Your task to perform on an android device: Check the weather Image 0: 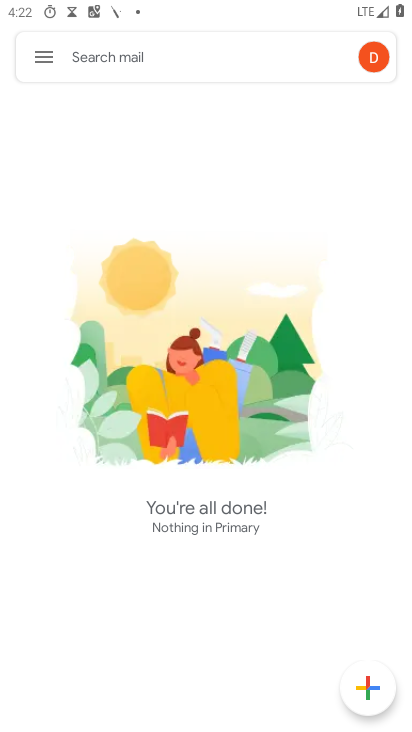
Step 0: press home button
Your task to perform on an android device: Check the weather Image 1: 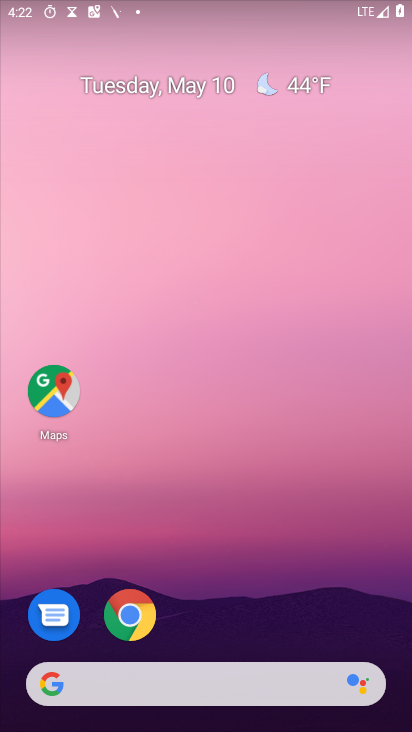
Step 1: drag from (256, 572) to (170, 126)
Your task to perform on an android device: Check the weather Image 2: 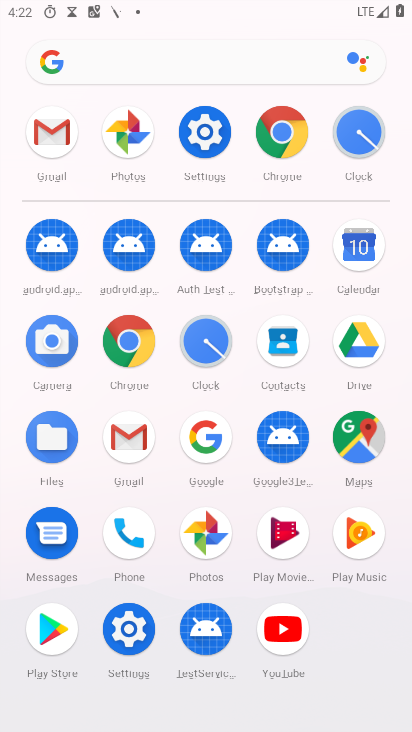
Step 2: click (143, 342)
Your task to perform on an android device: Check the weather Image 3: 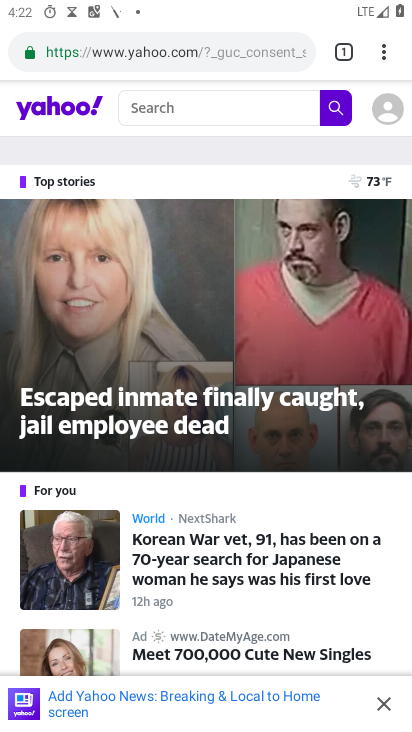
Step 3: click (233, 60)
Your task to perform on an android device: Check the weather Image 4: 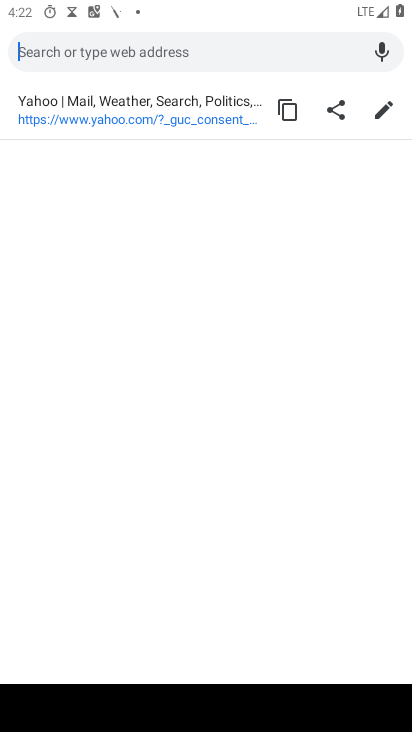
Step 4: type "weather"
Your task to perform on an android device: Check the weather Image 5: 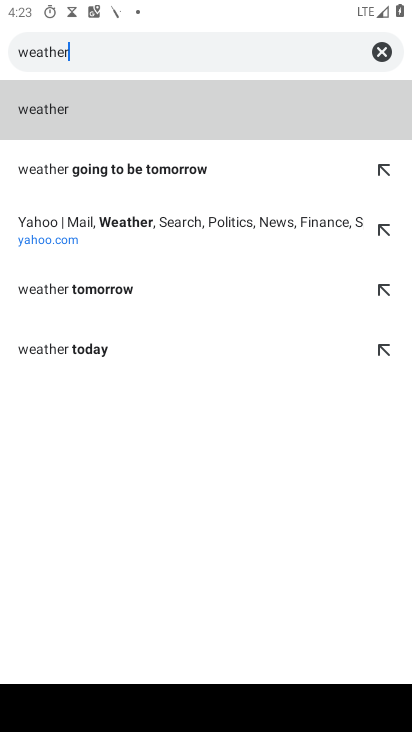
Step 5: click (386, 52)
Your task to perform on an android device: Check the weather Image 6: 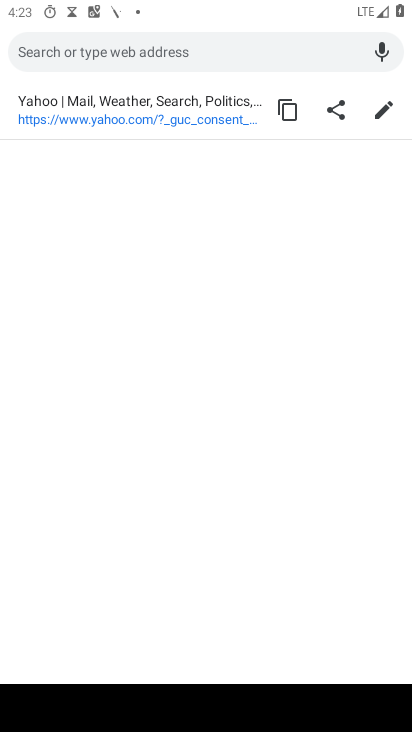
Step 6: type "check the weather"
Your task to perform on an android device: Check the weather Image 7: 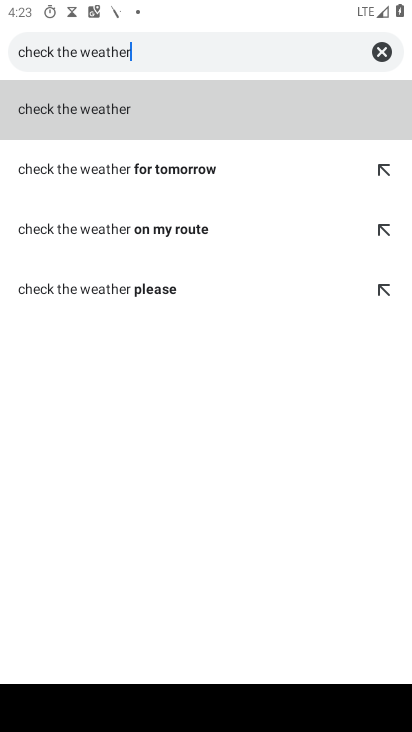
Step 7: task complete